Your task to perform on an android device: clear all cookies in the chrome app Image 0: 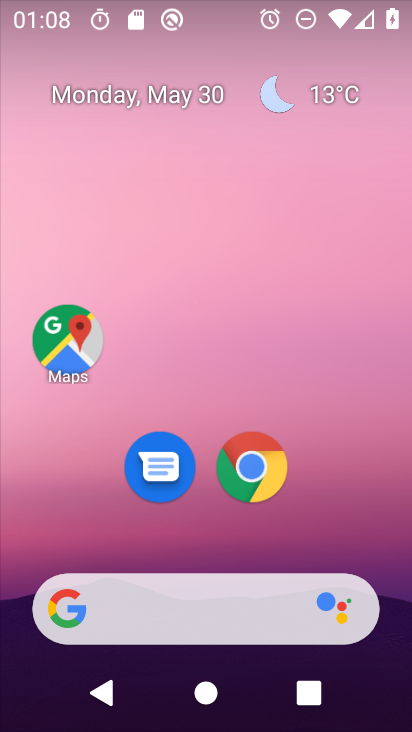
Step 0: click (240, 488)
Your task to perform on an android device: clear all cookies in the chrome app Image 1: 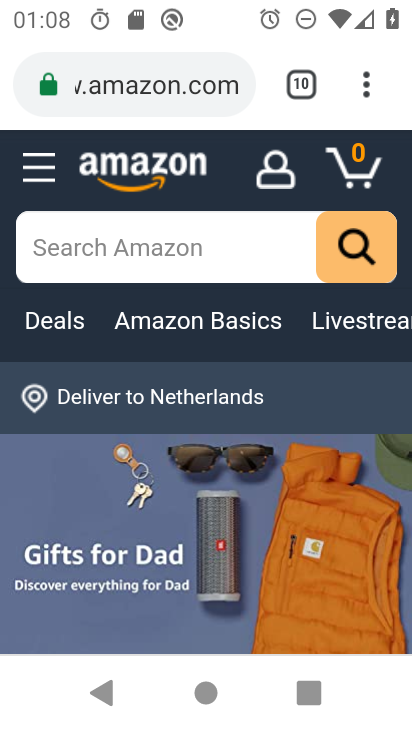
Step 1: drag from (366, 82) to (117, 433)
Your task to perform on an android device: clear all cookies in the chrome app Image 2: 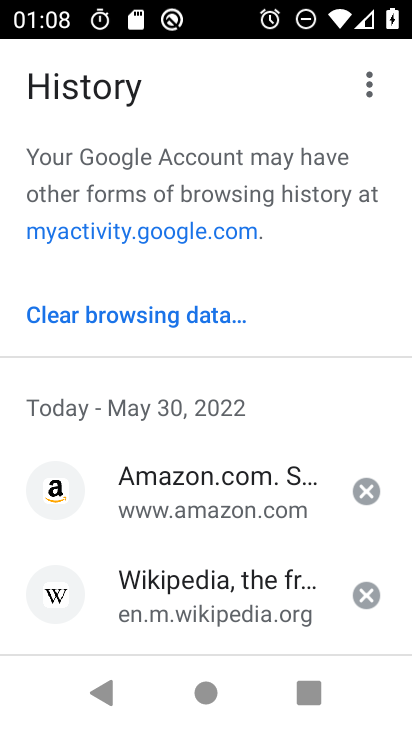
Step 2: click (204, 320)
Your task to perform on an android device: clear all cookies in the chrome app Image 3: 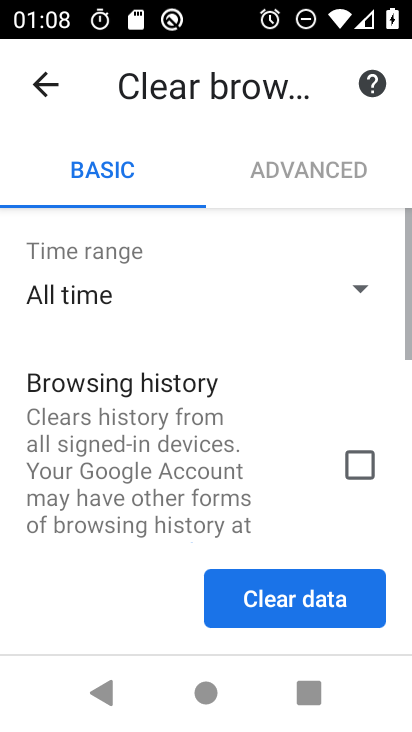
Step 3: drag from (262, 481) to (279, 321)
Your task to perform on an android device: clear all cookies in the chrome app Image 4: 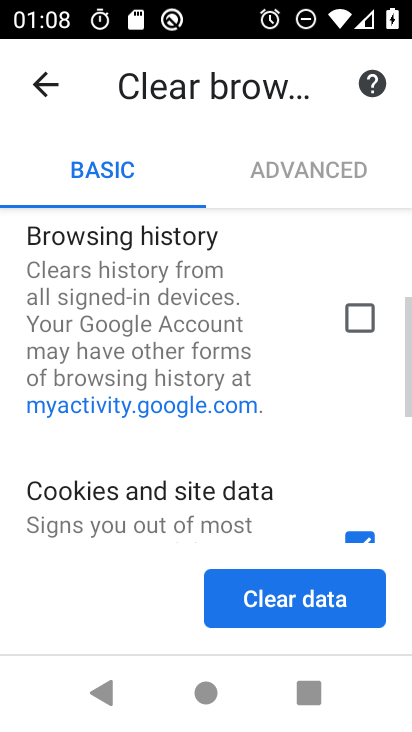
Step 4: click (362, 321)
Your task to perform on an android device: clear all cookies in the chrome app Image 5: 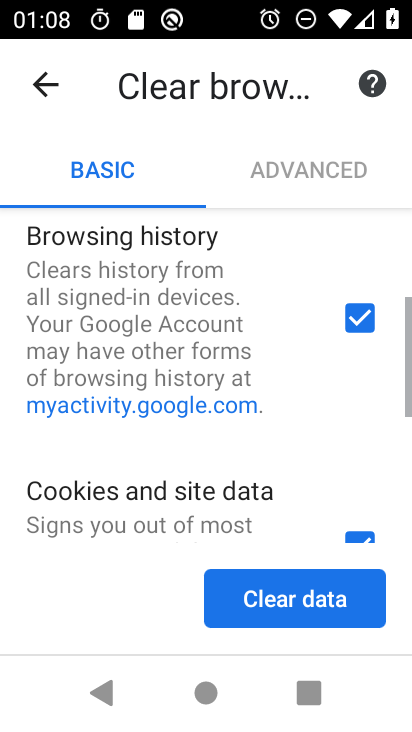
Step 5: drag from (259, 421) to (252, 229)
Your task to perform on an android device: clear all cookies in the chrome app Image 6: 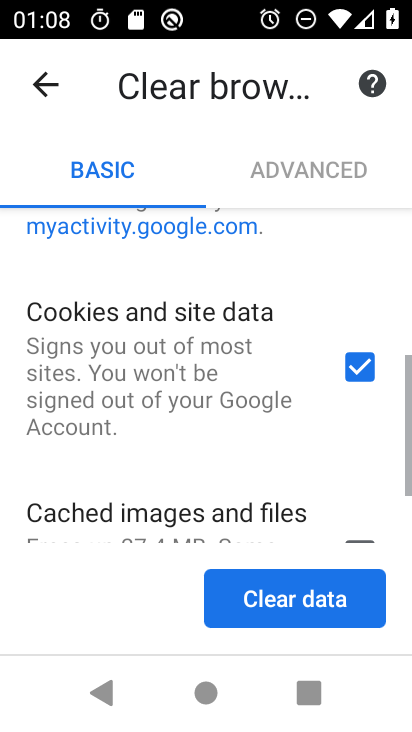
Step 6: drag from (265, 413) to (266, 289)
Your task to perform on an android device: clear all cookies in the chrome app Image 7: 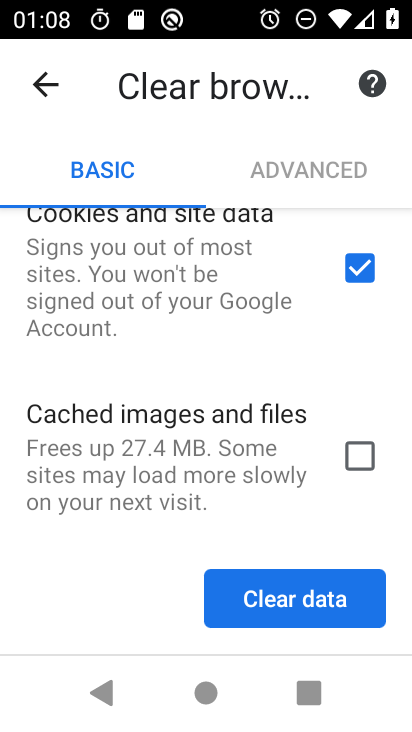
Step 7: click (350, 444)
Your task to perform on an android device: clear all cookies in the chrome app Image 8: 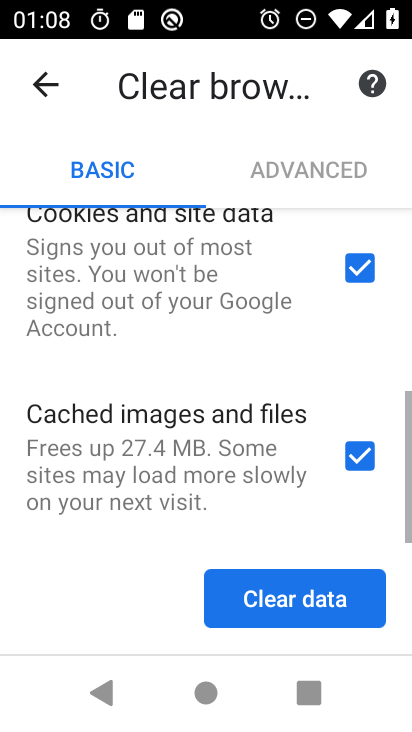
Step 8: click (319, 588)
Your task to perform on an android device: clear all cookies in the chrome app Image 9: 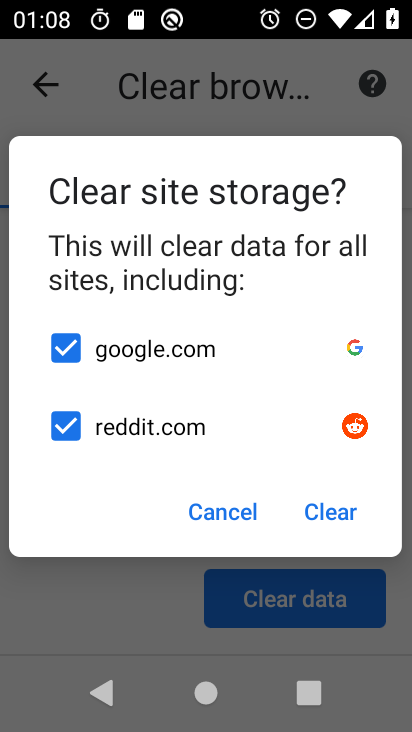
Step 9: click (330, 520)
Your task to perform on an android device: clear all cookies in the chrome app Image 10: 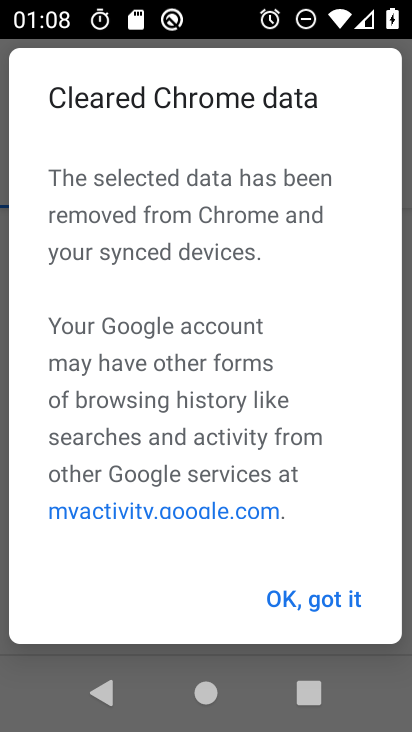
Step 10: click (340, 591)
Your task to perform on an android device: clear all cookies in the chrome app Image 11: 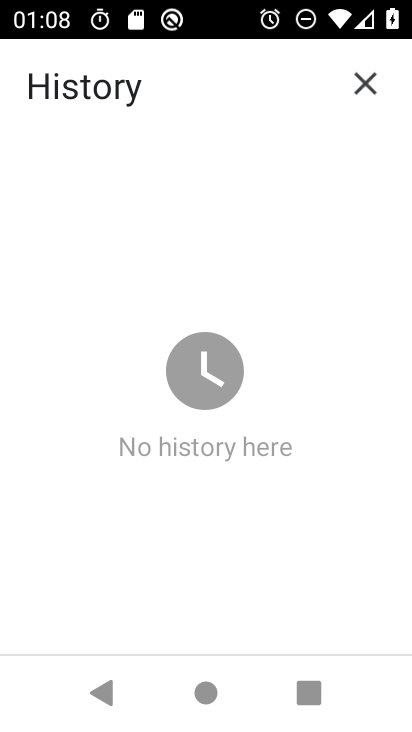
Step 11: task complete